Your task to perform on an android device: clear history in the chrome app Image 0: 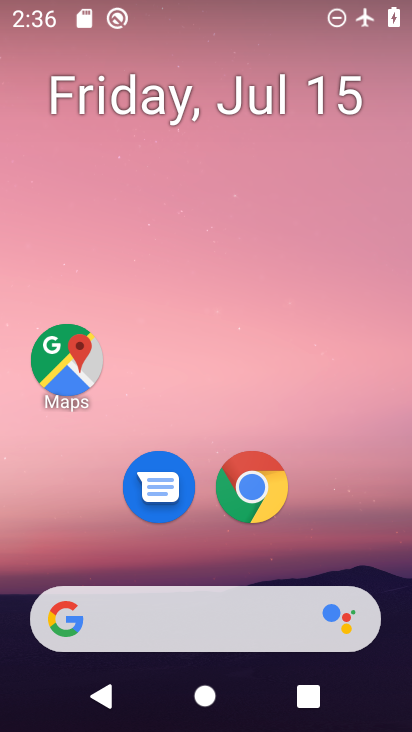
Step 0: drag from (127, 589) to (182, 90)
Your task to perform on an android device: clear history in the chrome app Image 1: 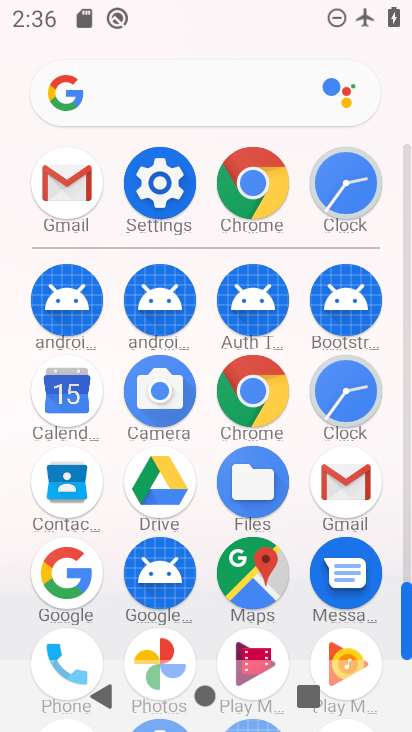
Step 1: click (260, 190)
Your task to perform on an android device: clear history in the chrome app Image 2: 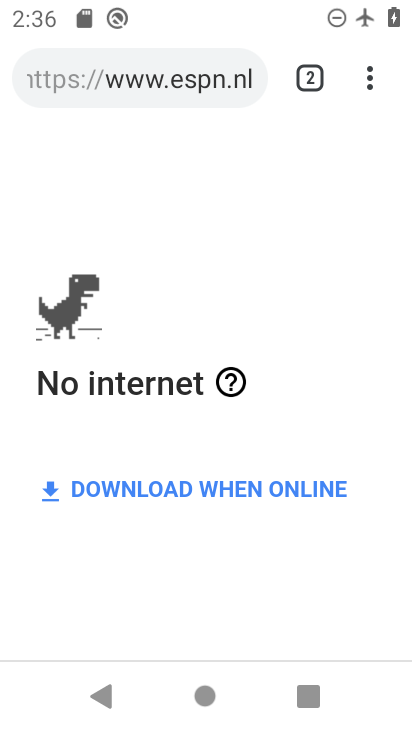
Step 2: click (371, 86)
Your task to perform on an android device: clear history in the chrome app Image 3: 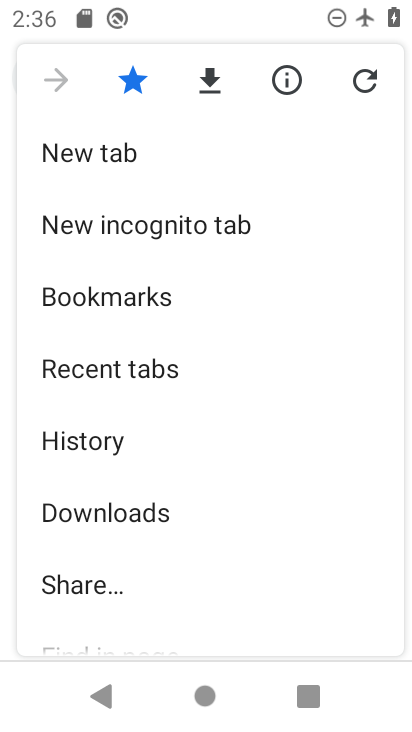
Step 3: click (139, 433)
Your task to perform on an android device: clear history in the chrome app Image 4: 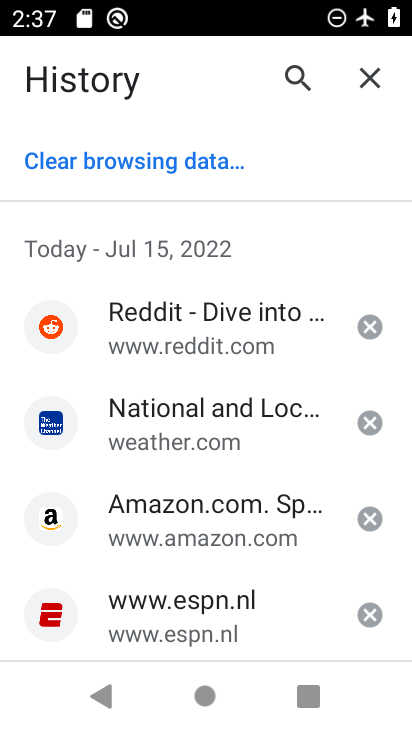
Step 4: click (161, 165)
Your task to perform on an android device: clear history in the chrome app Image 5: 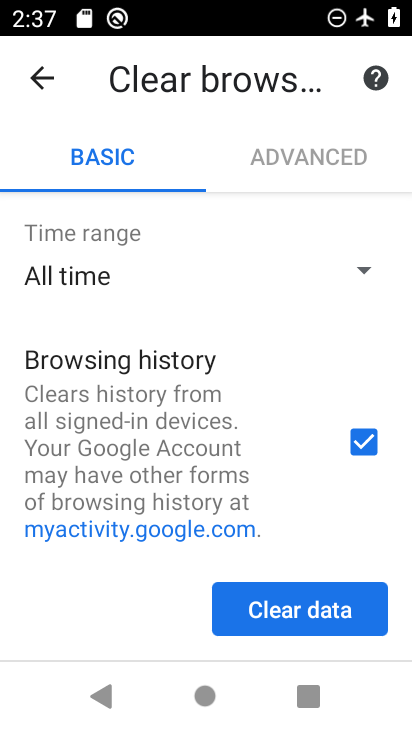
Step 5: click (317, 590)
Your task to perform on an android device: clear history in the chrome app Image 6: 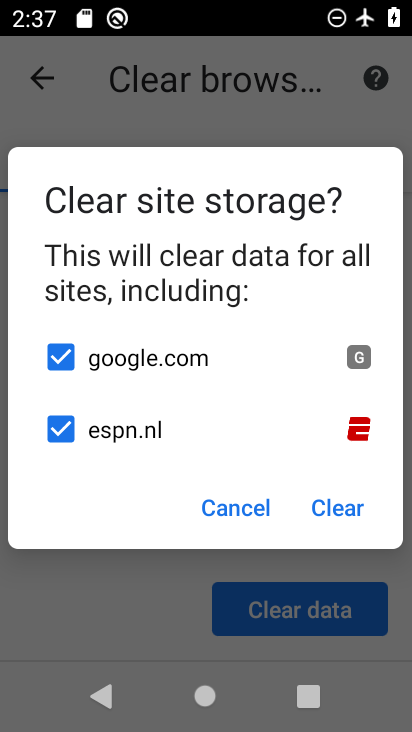
Step 6: click (317, 499)
Your task to perform on an android device: clear history in the chrome app Image 7: 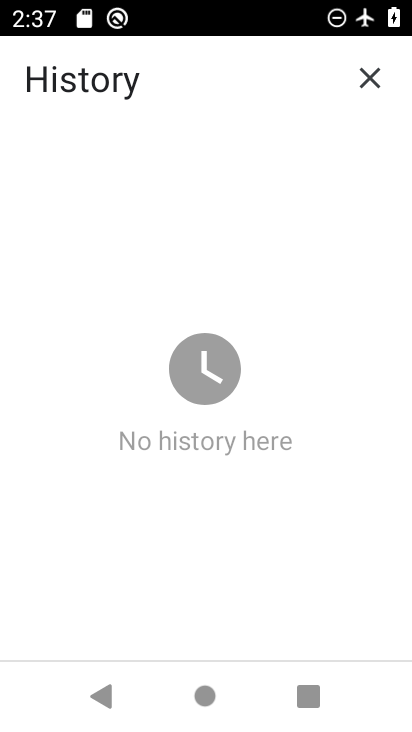
Step 7: task complete